Your task to perform on an android device: turn on the 12-hour format for clock Image 0: 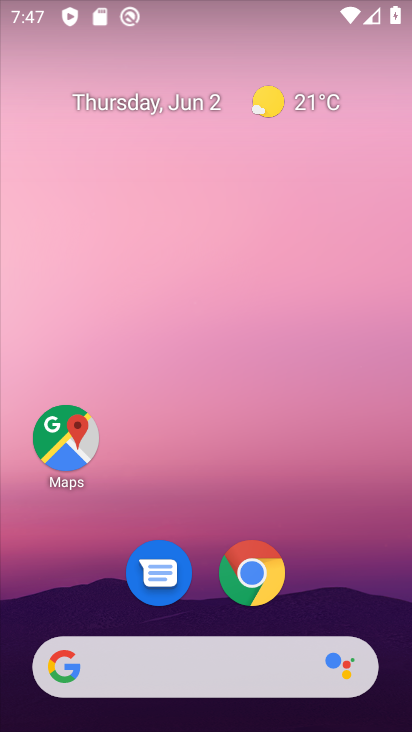
Step 0: drag from (324, 596) to (310, 81)
Your task to perform on an android device: turn on the 12-hour format for clock Image 1: 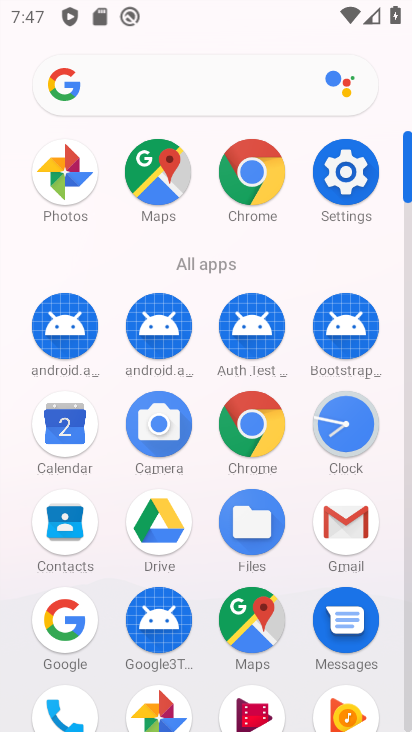
Step 1: click (353, 427)
Your task to perform on an android device: turn on the 12-hour format for clock Image 2: 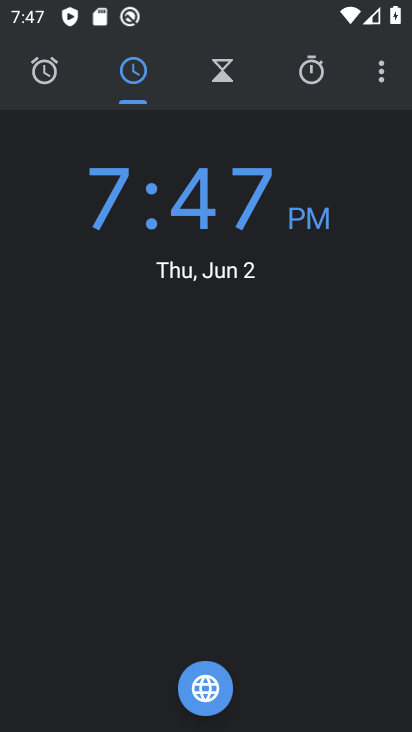
Step 2: click (386, 63)
Your task to perform on an android device: turn on the 12-hour format for clock Image 3: 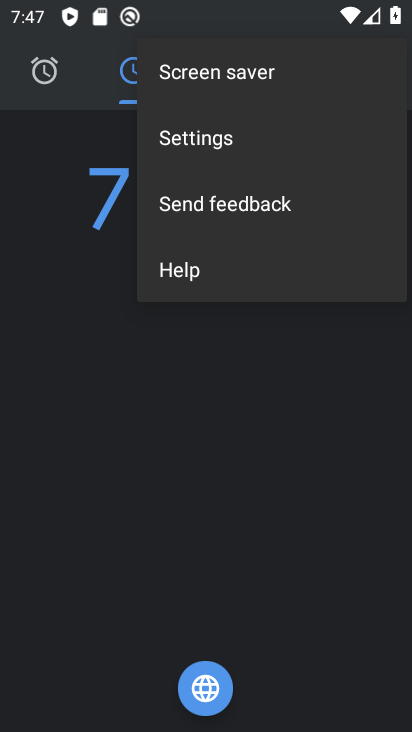
Step 3: click (175, 129)
Your task to perform on an android device: turn on the 12-hour format for clock Image 4: 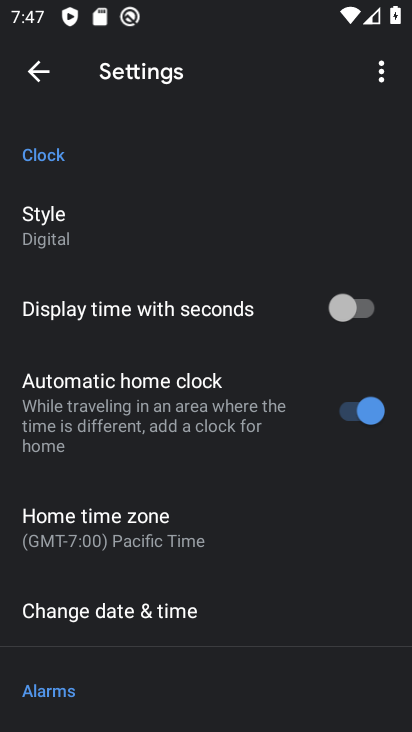
Step 4: click (126, 611)
Your task to perform on an android device: turn on the 12-hour format for clock Image 5: 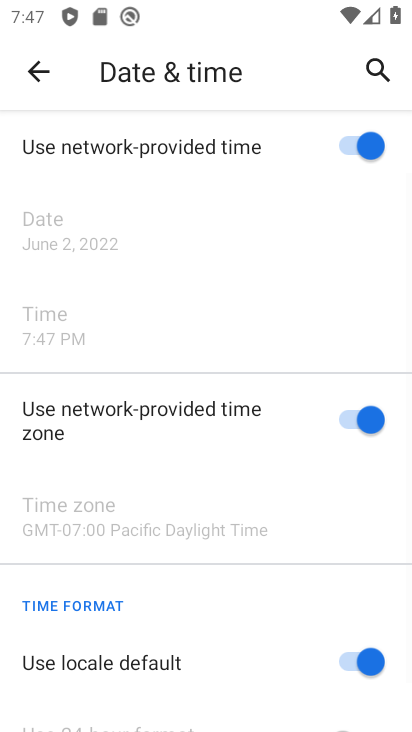
Step 5: task complete